Your task to perform on an android device: open a bookmark in the chrome app Image 0: 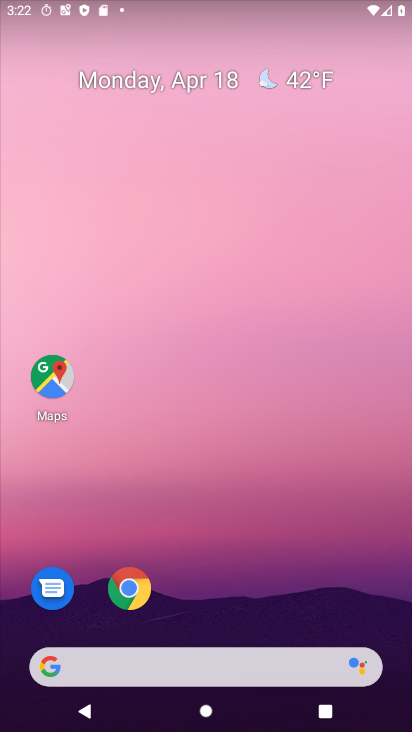
Step 0: click (125, 588)
Your task to perform on an android device: open a bookmark in the chrome app Image 1: 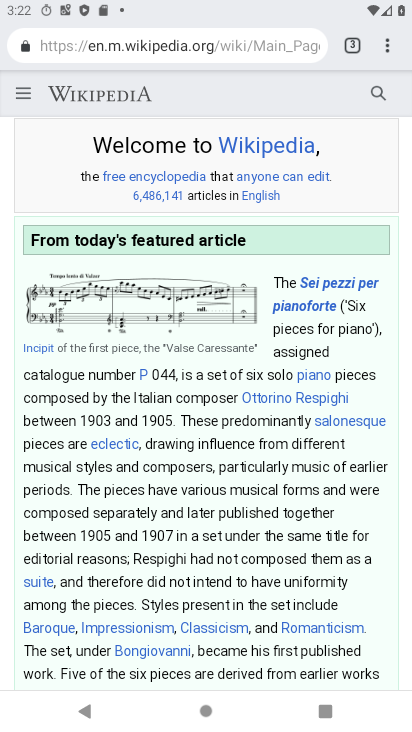
Step 1: click (381, 54)
Your task to perform on an android device: open a bookmark in the chrome app Image 2: 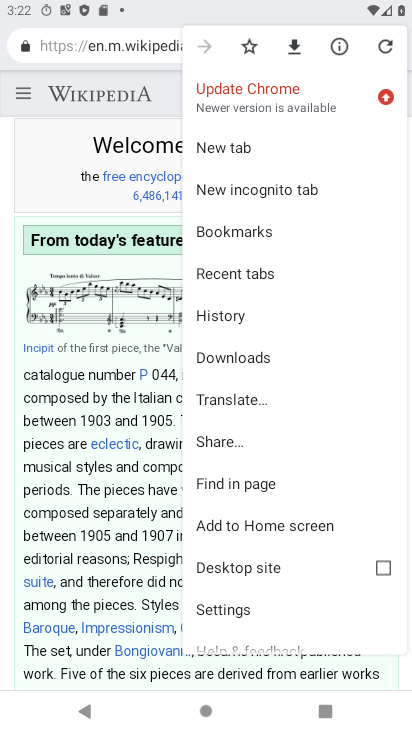
Step 2: click (266, 234)
Your task to perform on an android device: open a bookmark in the chrome app Image 3: 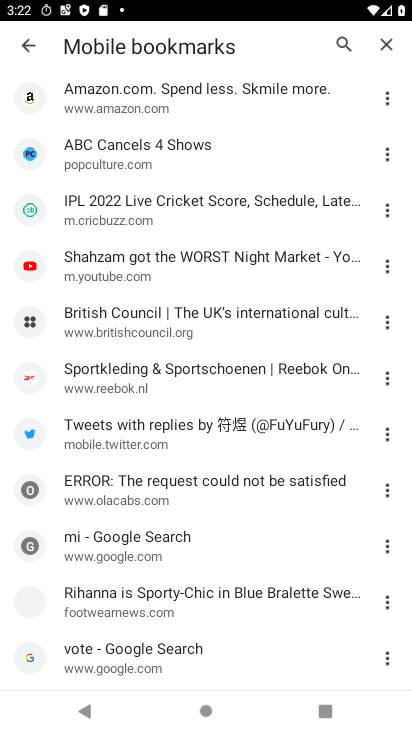
Step 3: click (179, 370)
Your task to perform on an android device: open a bookmark in the chrome app Image 4: 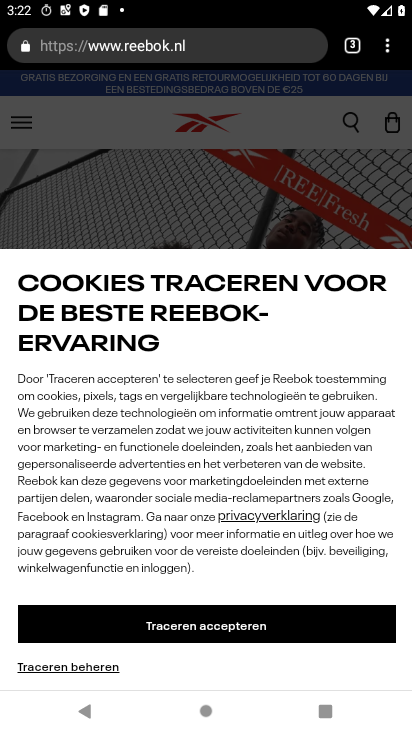
Step 4: task complete